Your task to perform on an android device: Search for vegetarian restaurants on Maps Image 0: 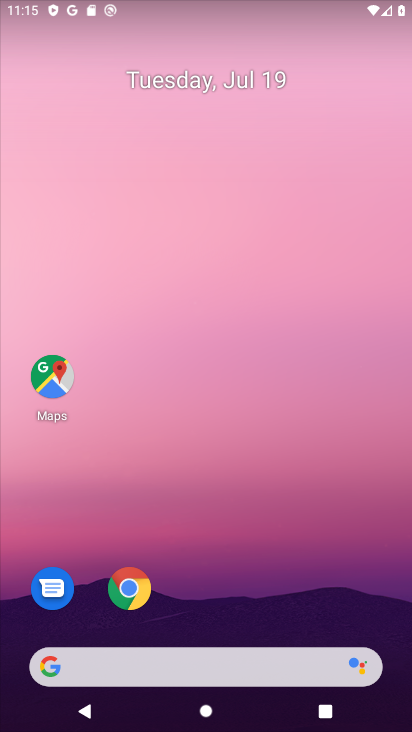
Step 0: drag from (244, 725) to (243, 163)
Your task to perform on an android device: Search for vegetarian restaurants on Maps Image 1: 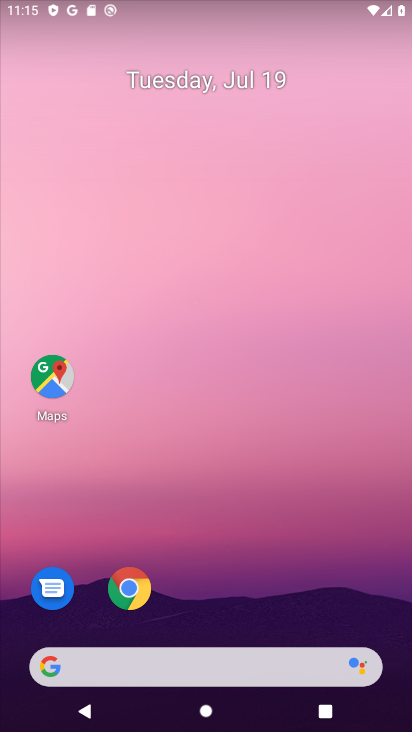
Step 1: drag from (235, 730) to (237, 550)
Your task to perform on an android device: Search for vegetarian restaurants on Maps Image 2: 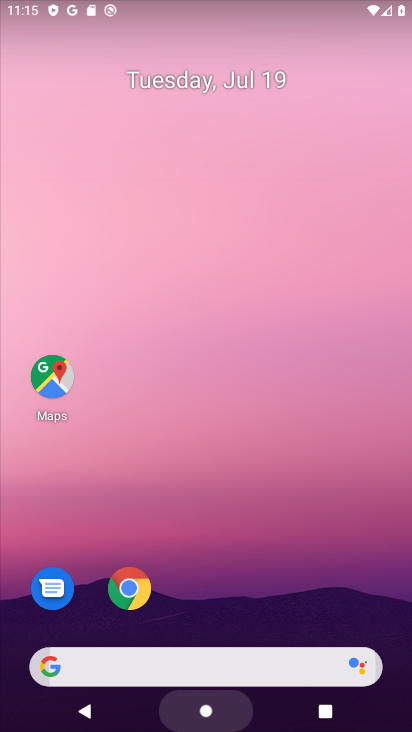
Step 2: click (238, 309)
Your task to perform on an android device: Search for vegetarian restaurants on Maps Image 3: 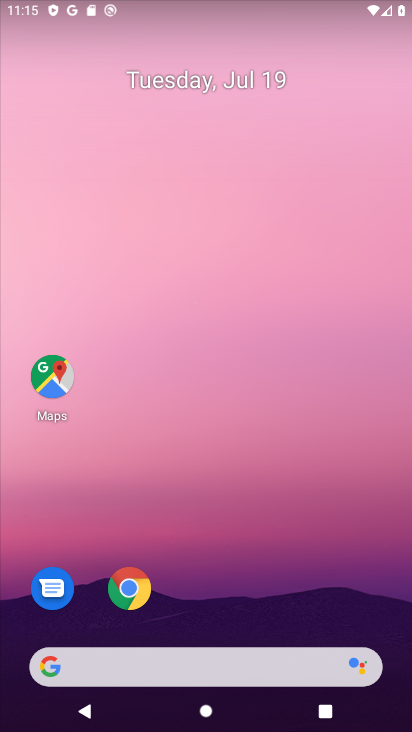
Step 3: drag from (226, 726) to (231, 304)
Your task to perform on an android device: Search for vegetarian restaurants on Maps Image 4: 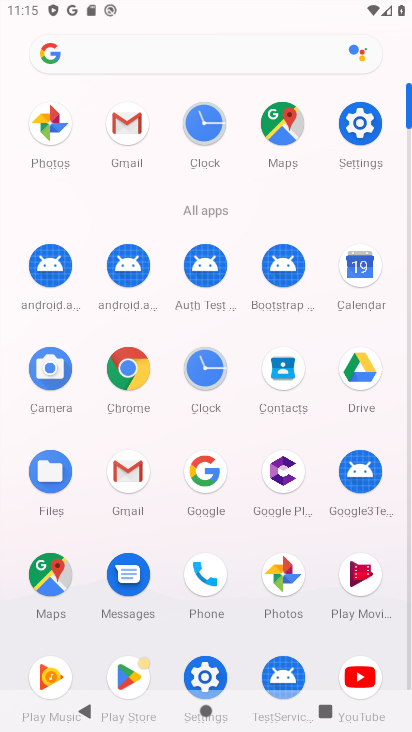
Step 4: click (53, 578)
Your task to perform on an android device: Search for vegetarian restaurants on Maps Image 5: 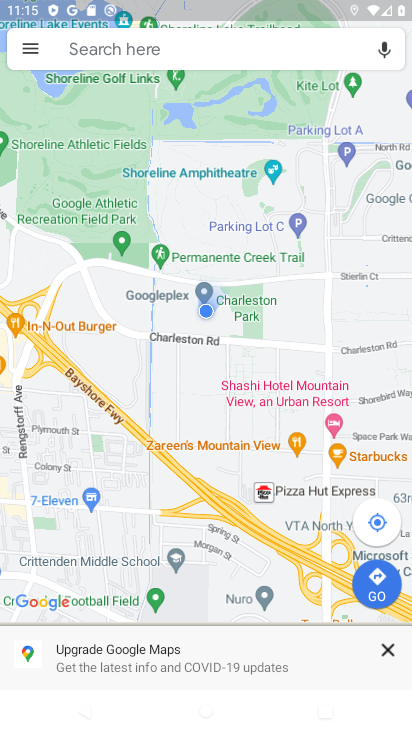
Step 5: click (154, 42)
Your task to perform on an android device: Search for vegetarian restaurants on Maps Image 6: 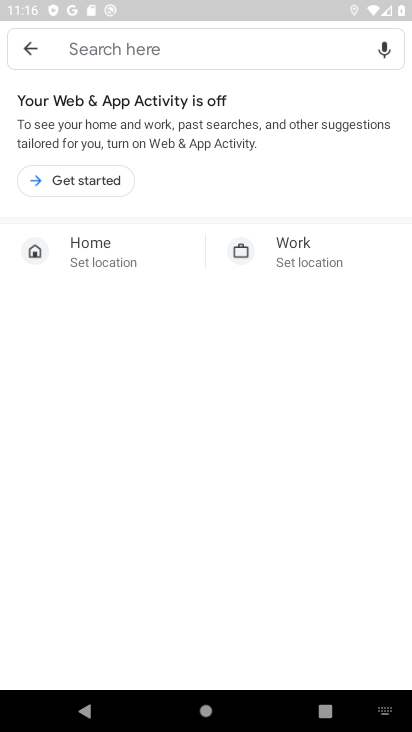
Step 6: type "vegetarian restaurants"
Your task to perform on an android device: Search for vegetarian restaurants on Maps Image 7: 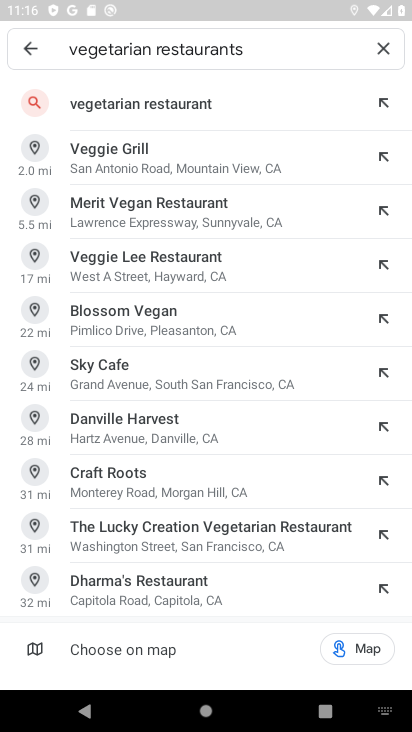
Step 7: click (155, 104)
Your task to perform on an android device: Search for vegetarian restaurants on Maps Image 8: 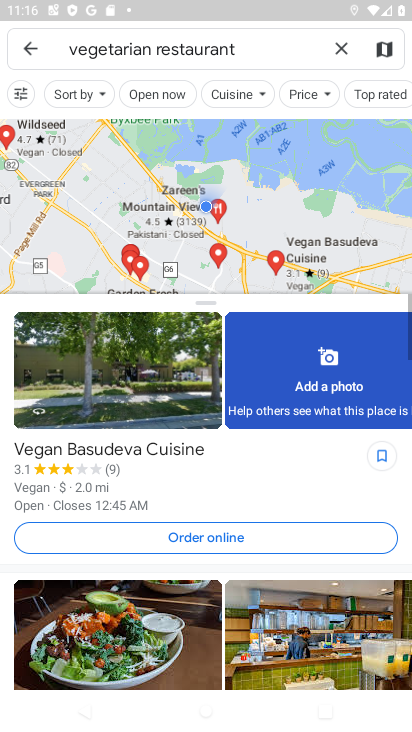
Step 8: task complete